Your task to perform on an android device: Search for jbl charge 4 on bestbuy.com, select the first entry, add it to the cart, then select checkout. Image 0: 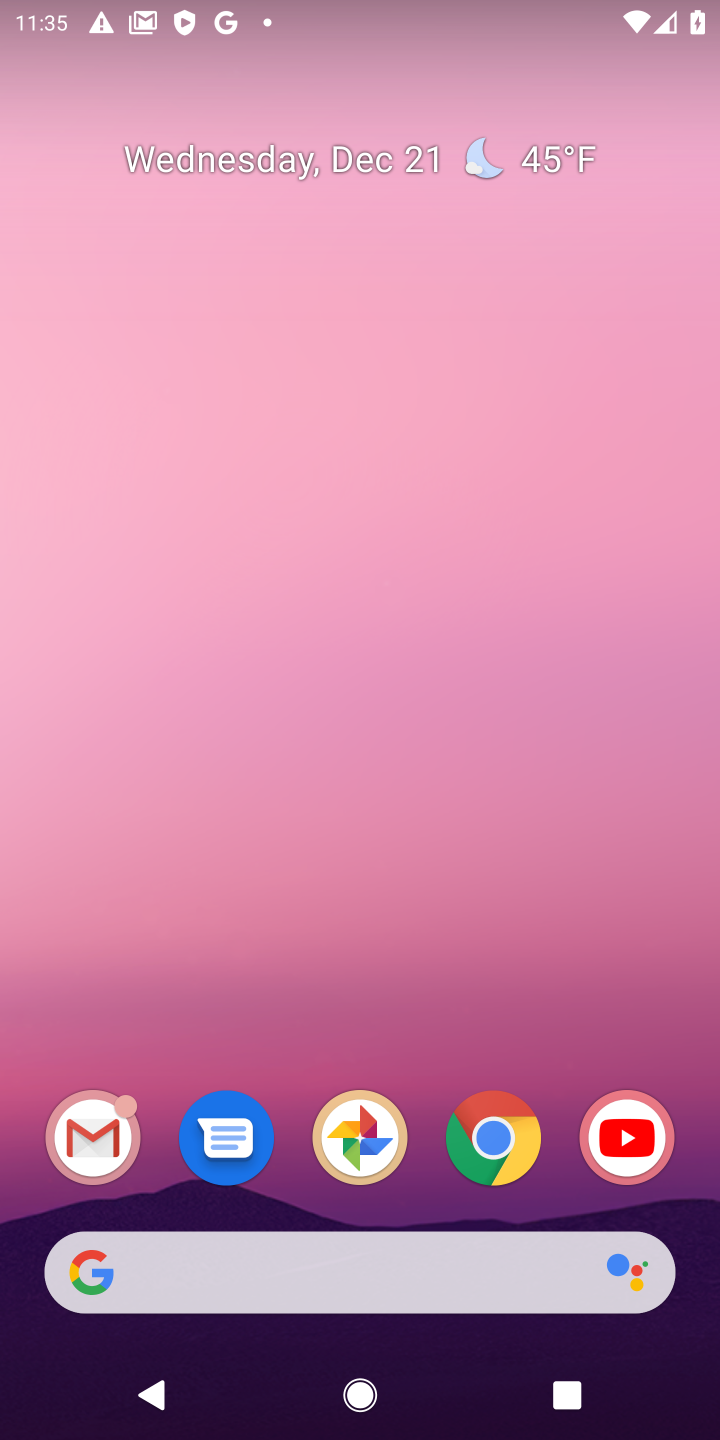
Step 0: click (495, 1139)
Your task to perform on an android device: Search for jbl charge 4 on bestbuy.com, select the first entry, add it to the cart, then select checkout. Image 1: 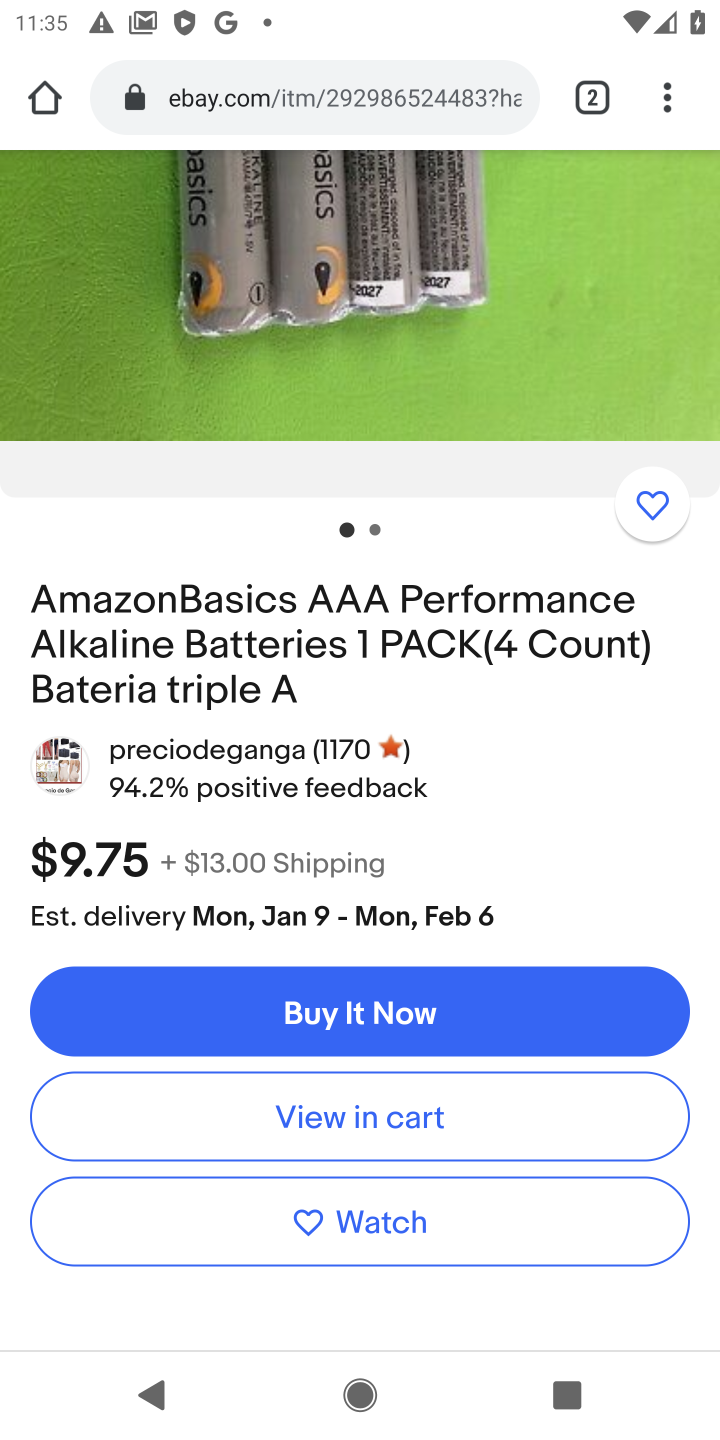
Step 1: click (261, 96)
Your task to perform on an android device: Search for jbl charge 4 on bestbuy.com, select the first entry, add it to the cart, then select checkout. Image 2: 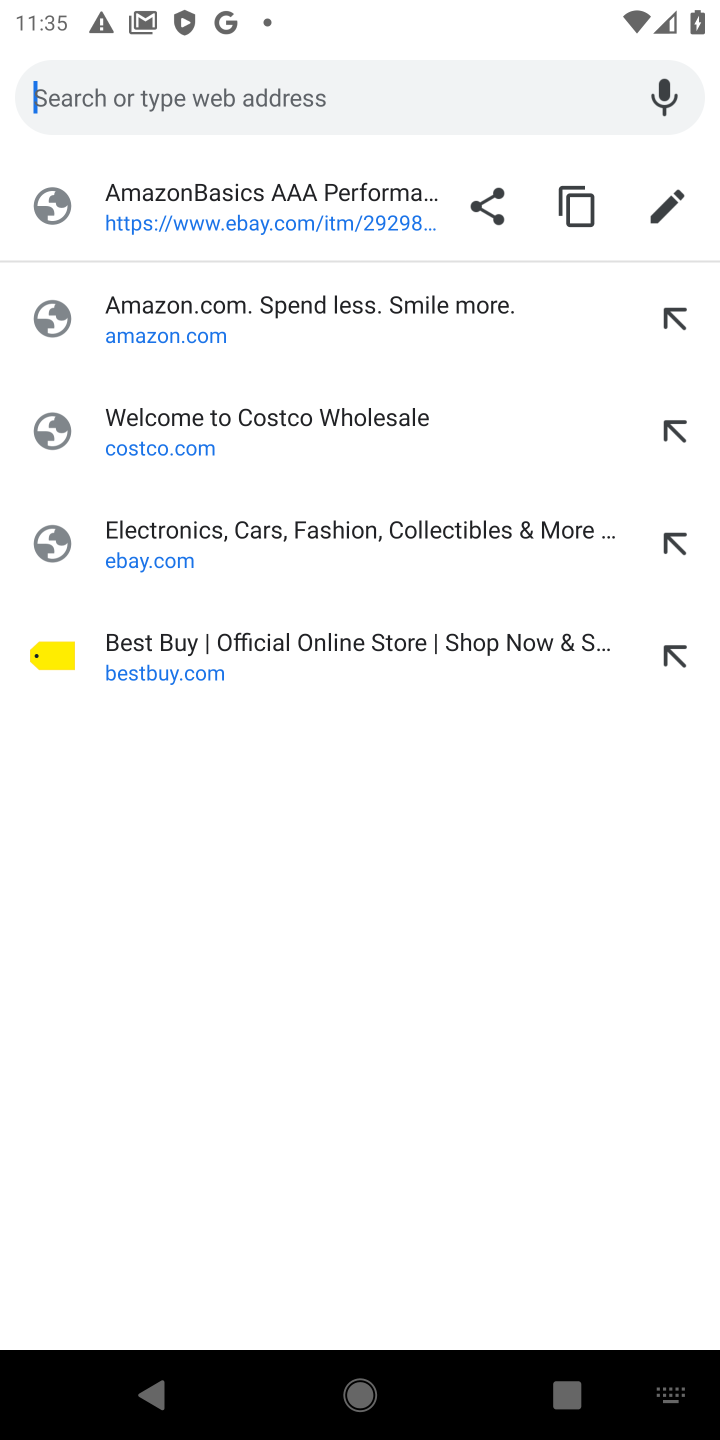
Step 2: click (123, 653)
Your task to perform on an android device: Search for jbl charge 4 on bestbuy.com, select the first entry, add it to the cart, then select checkout. Image 3: 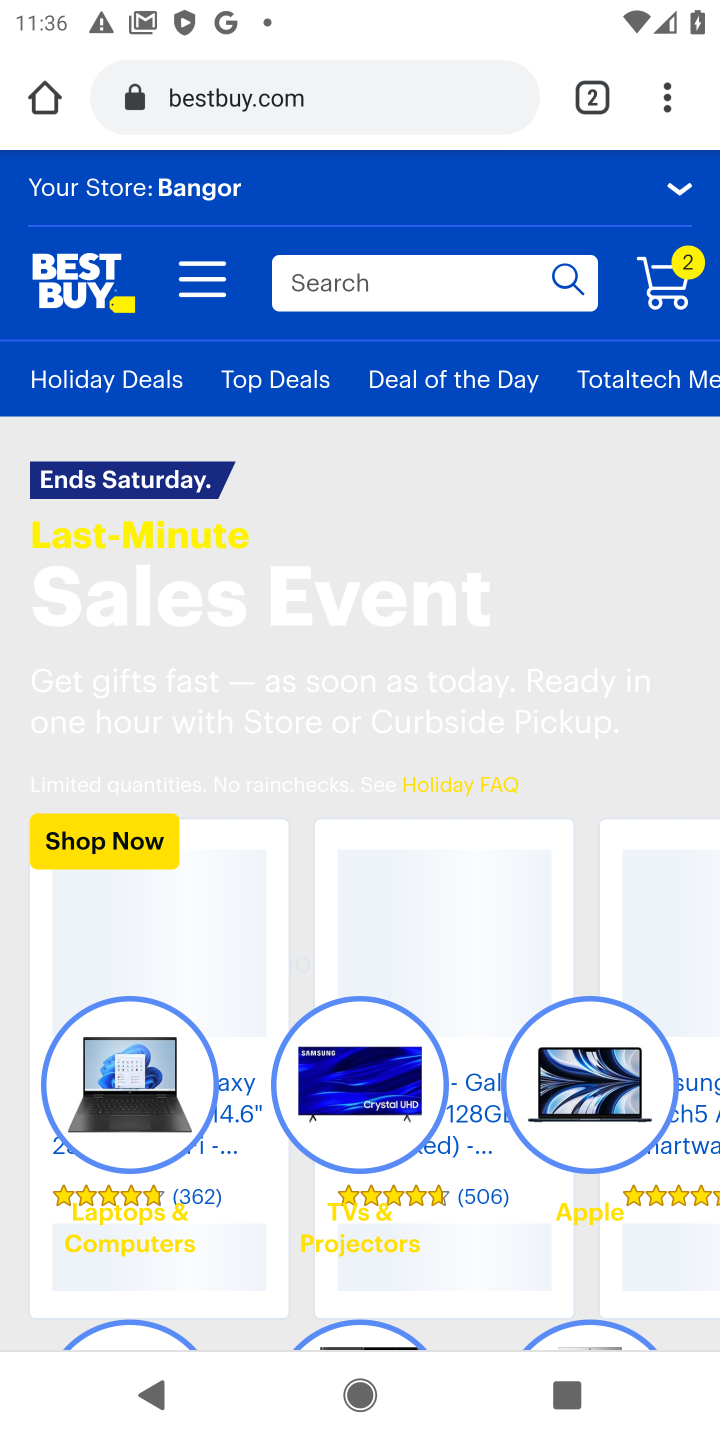
Step 3: click (352, 285)
Your task to perform on an android device: Search for jbl charge 4 on bestbuy.com, select the first entry, add it to the cart, then select checkout. Image 4: 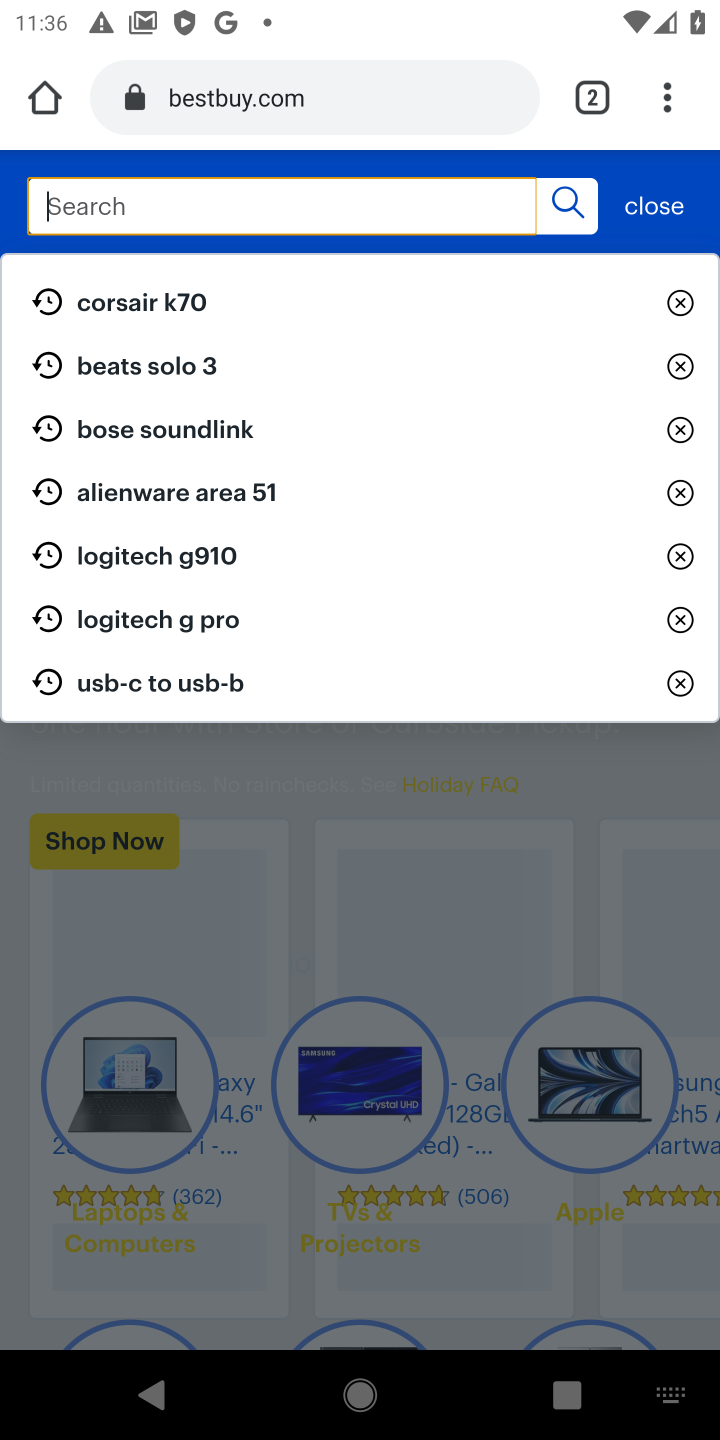
Step 4: type " jbl charge 4"
Your task to perform on an android device: Search for jbl charge 4 on bestbuy.com, select the first entry, add it to the cart, then select checkout. Image 5: 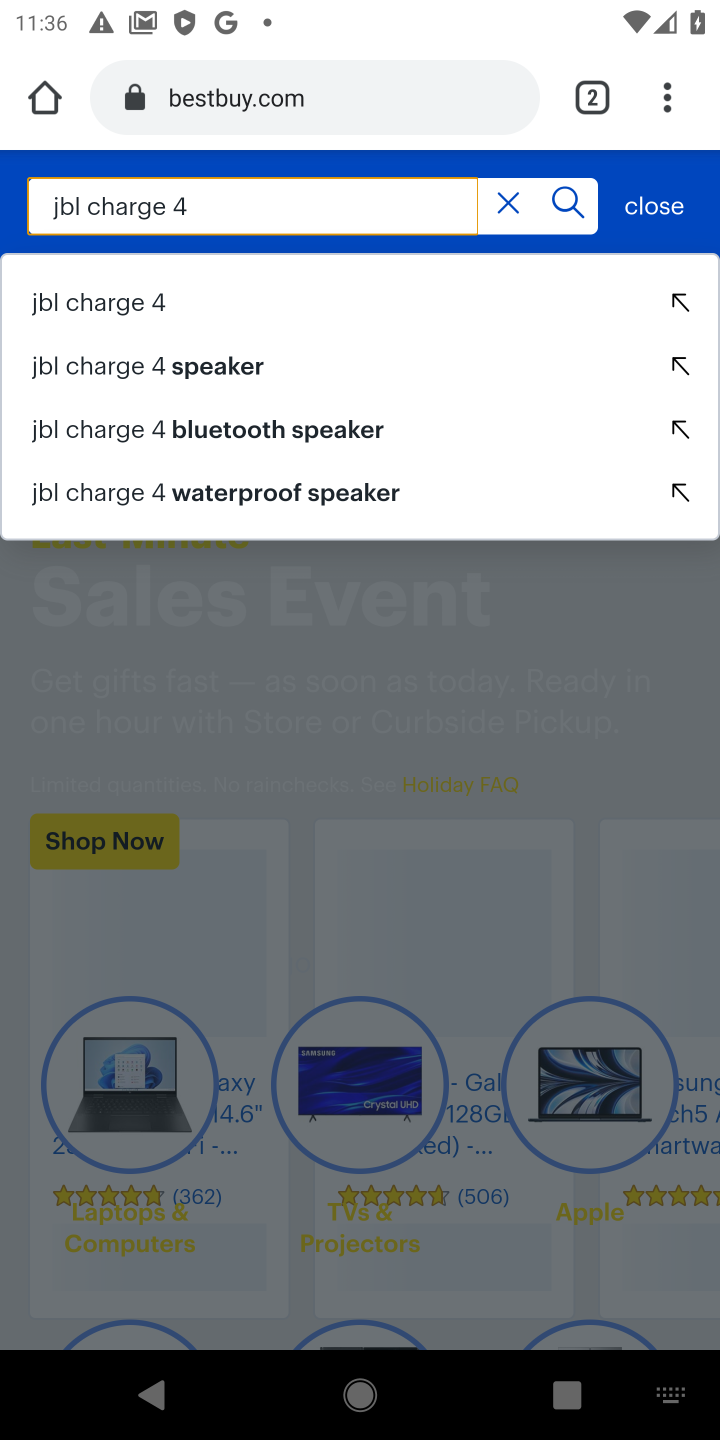
Step 5: click (137, 309)
Your task to perform on an android device: Search for jbl charge 4 on bestbuy.com, select the first entry, add it to the cart, then select checkout. Image 6: 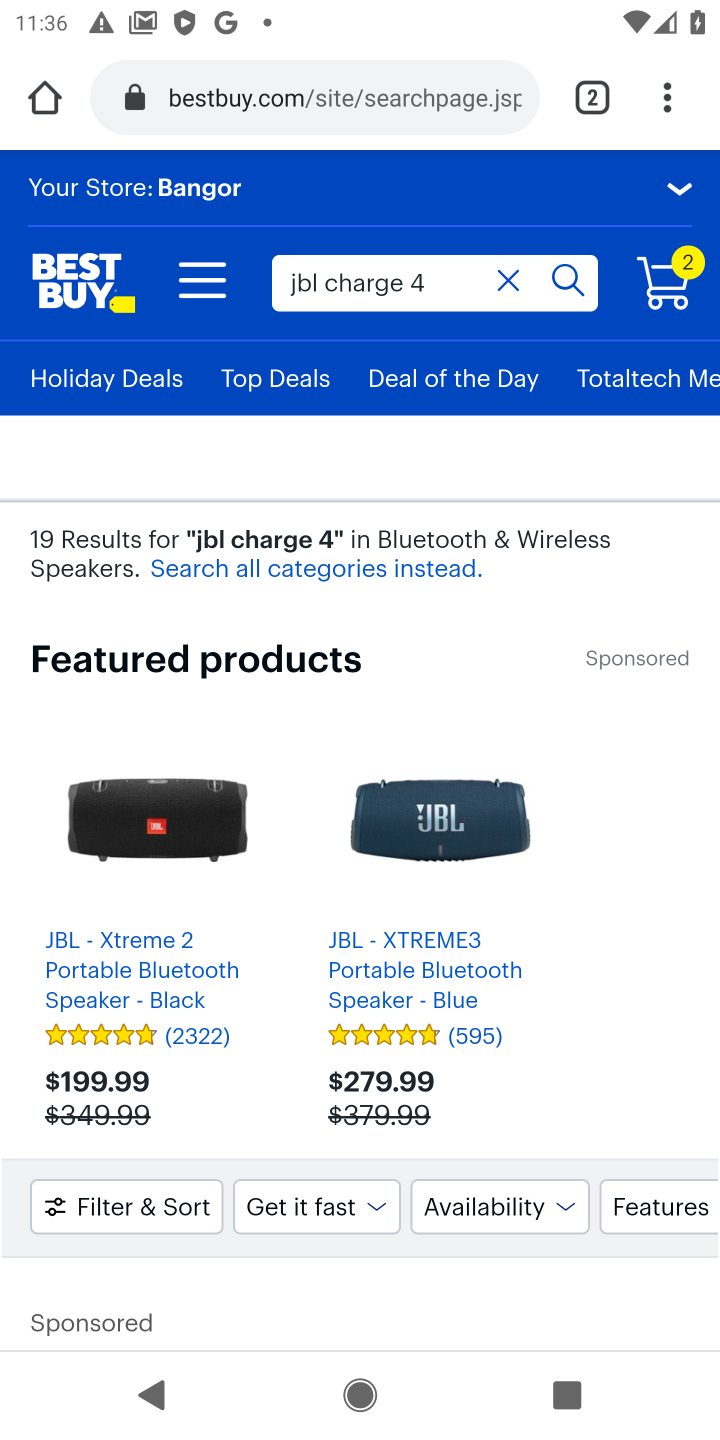
Step 6: task complete